Your task to perform on an android device: What's the latest news in space exploration? Image 0: 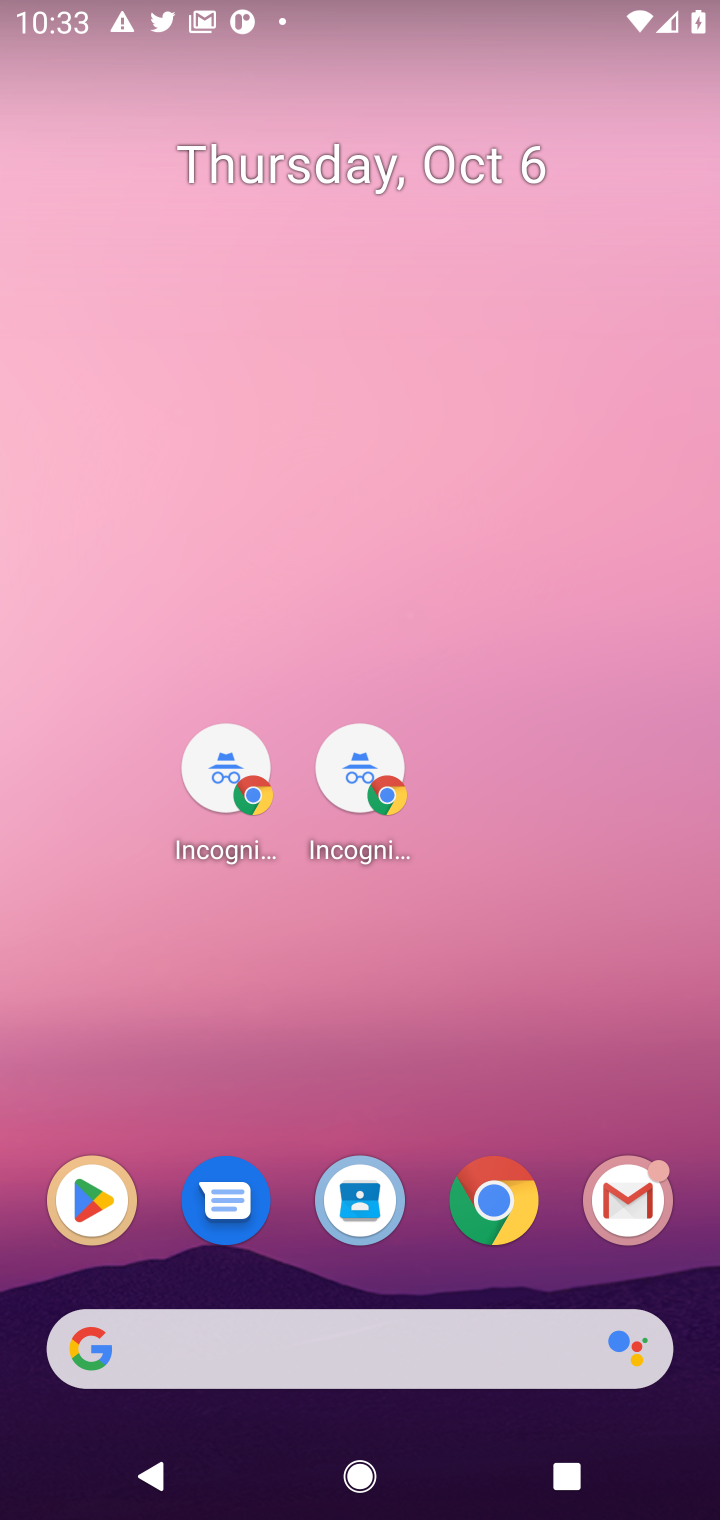
Step 0: click (487, 1189)
Your task to perform on an android device: What's the latest news in space exploration? Image 1: 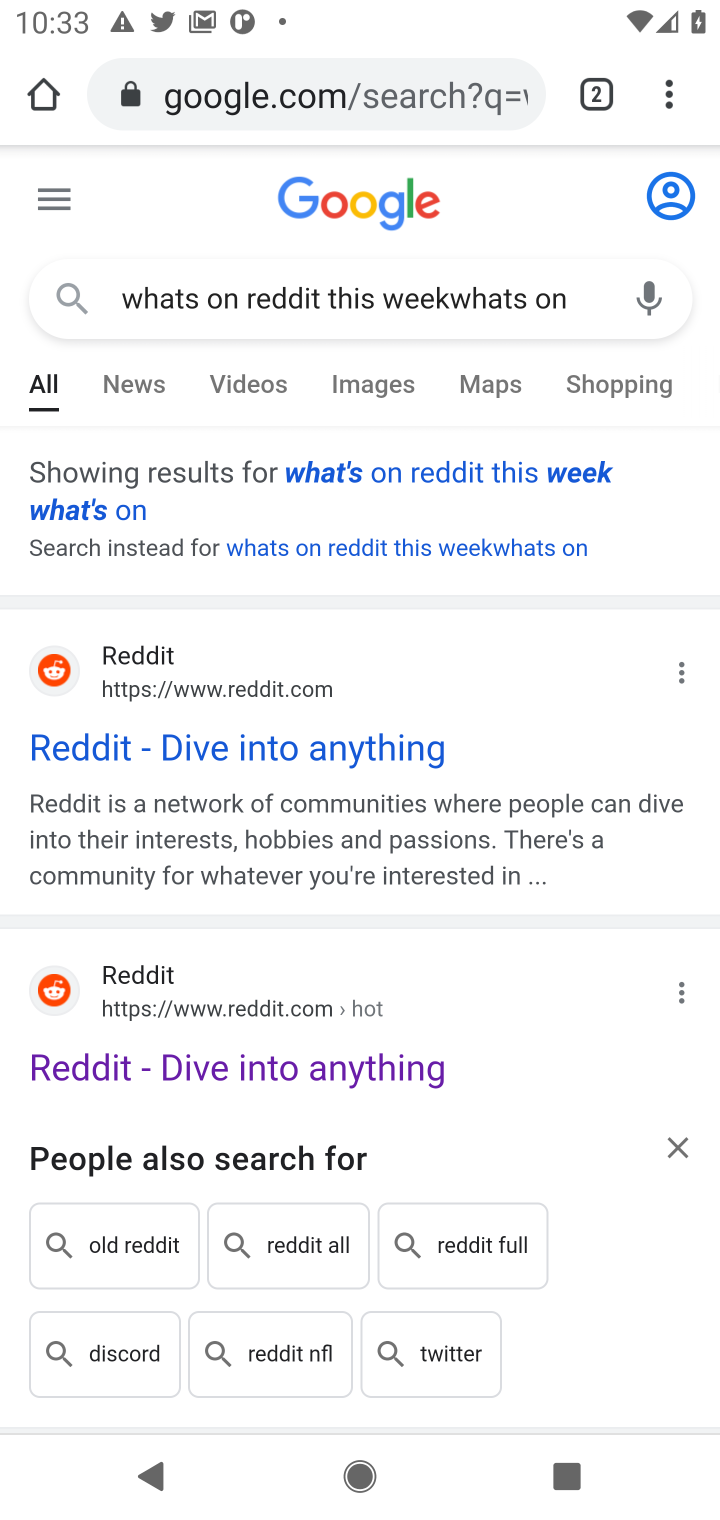
Step 1: click (358, 282)
Your task to perform on an android device: What's the latest news in space exploration? Image 2: 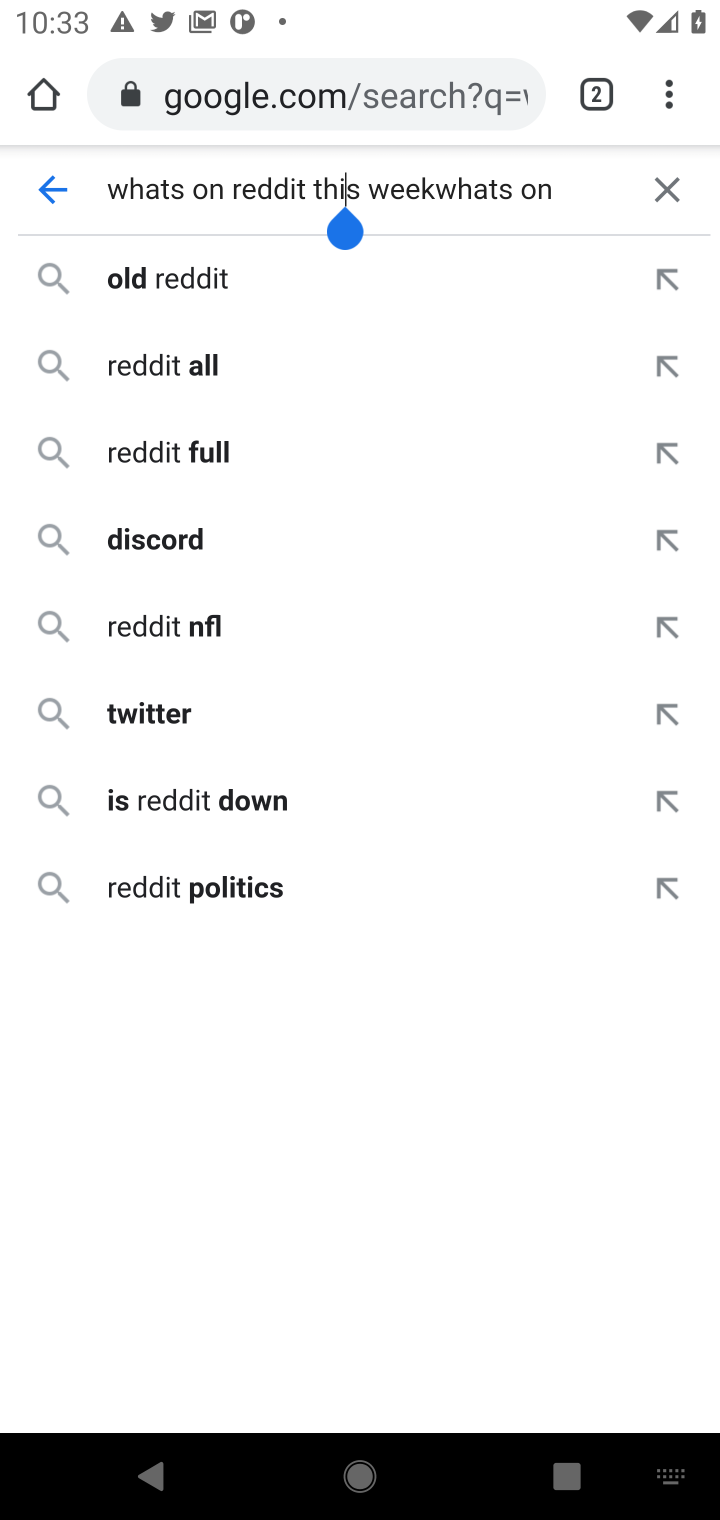
Step 2: click (661, 184)
Your task to perform on an android device: What's the latest news in space exploration? Image 3: 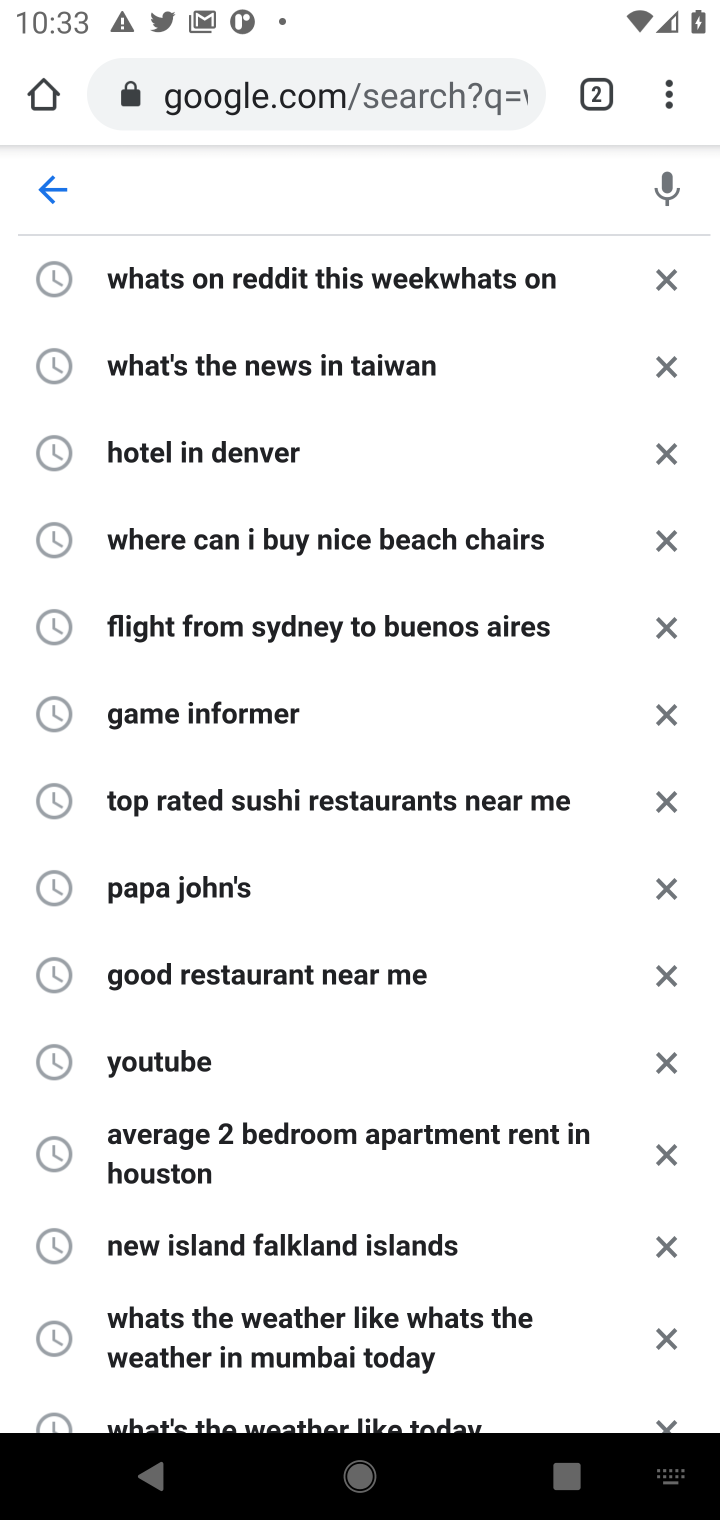
Step 3: type "whats the latest news in space exploration "
Your task to perform on an android device: What's the latest news in space exploration? Image 4: 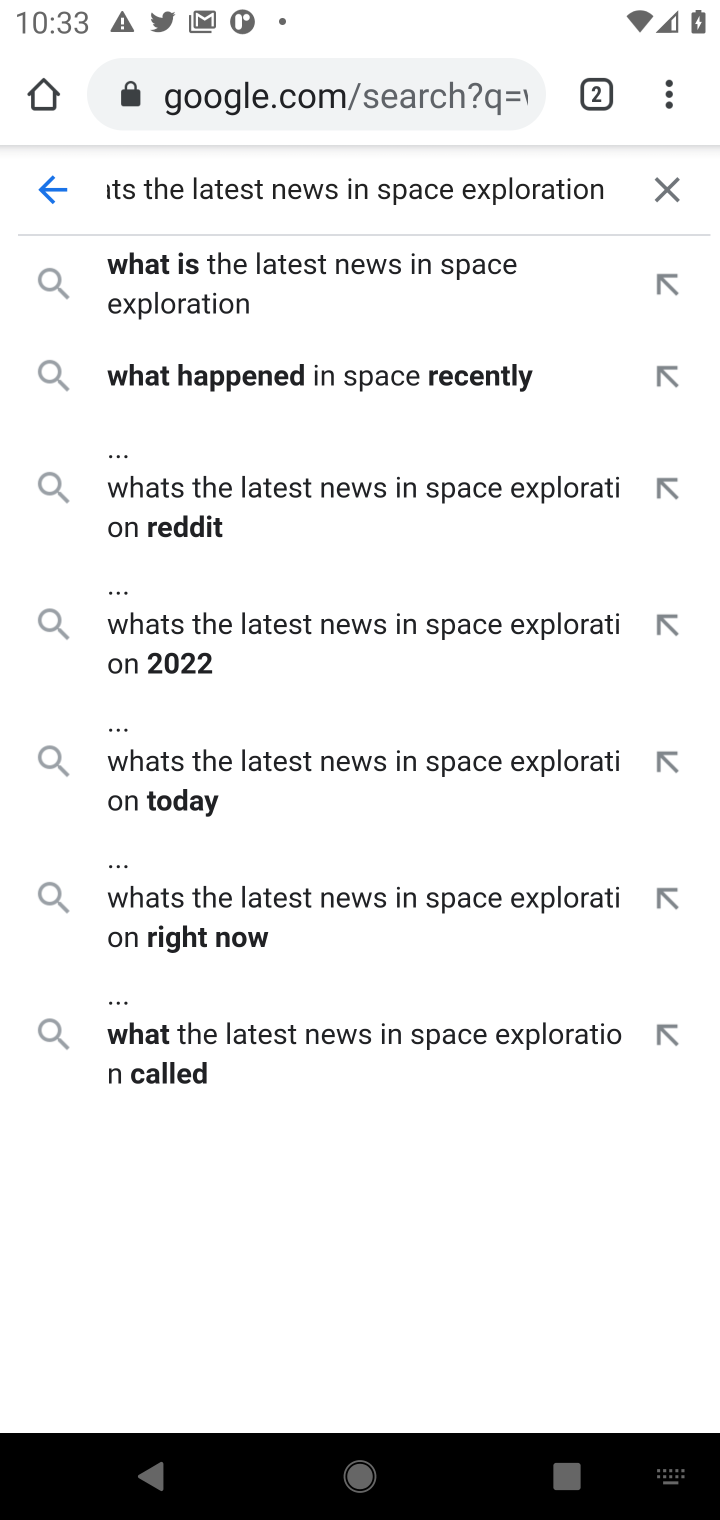
Step 4: click (287, 283)
Your task to perform on an android device: What's the latest news in space exploration? Image 5: 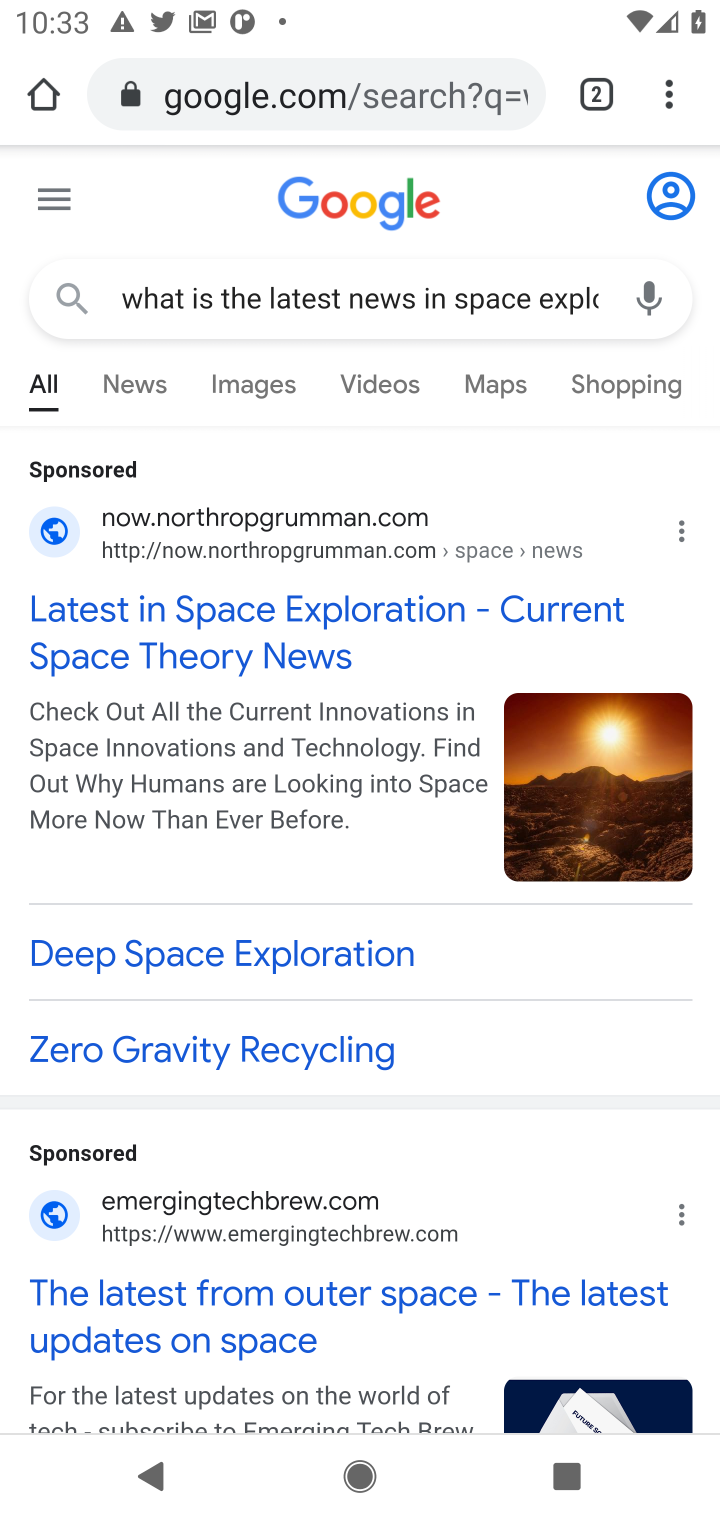
Step 5: click (215, 619)
Your task to perform on an android device: What's the latest news in space exploration? Image 6: 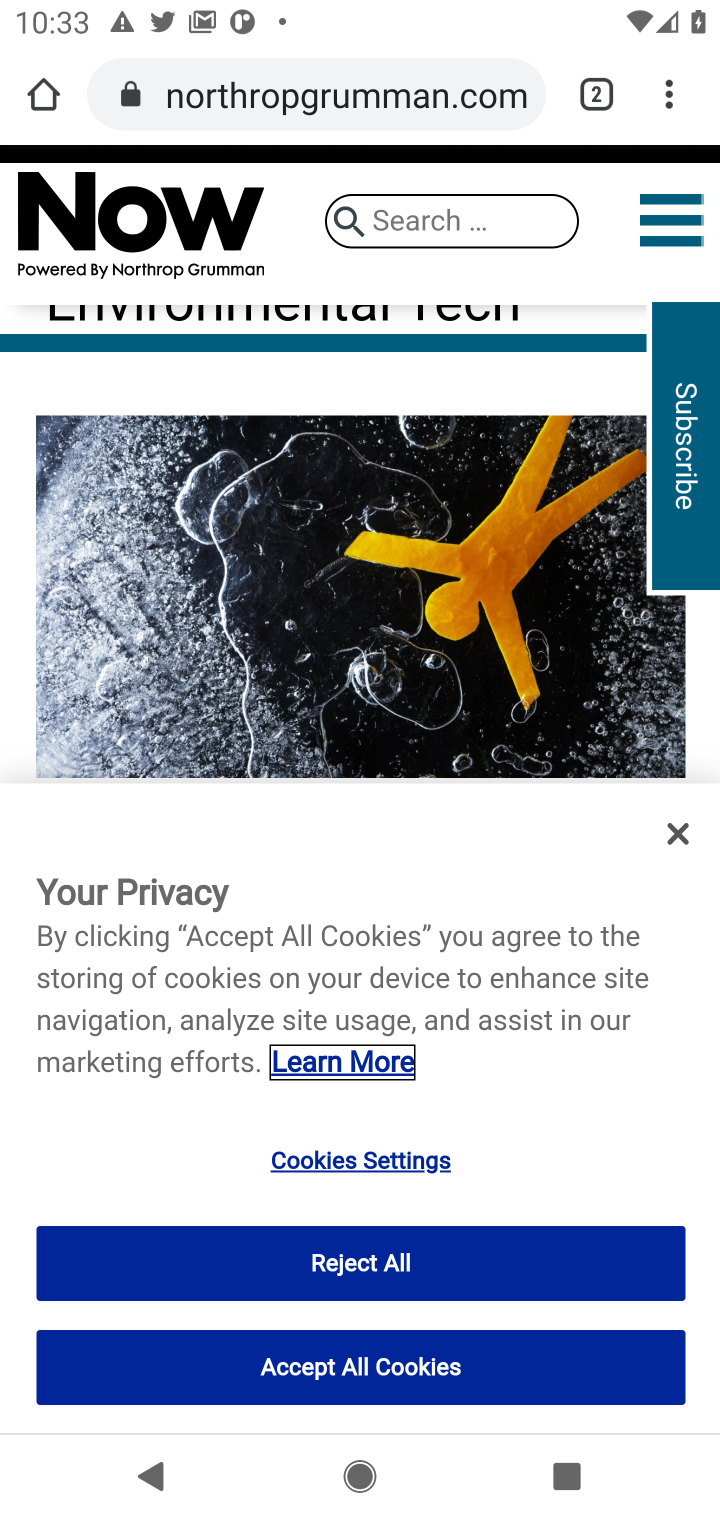
Step 6: click (692, 834)
Your task to perform on an android device: What's the latest news in space exploration? Image 7: 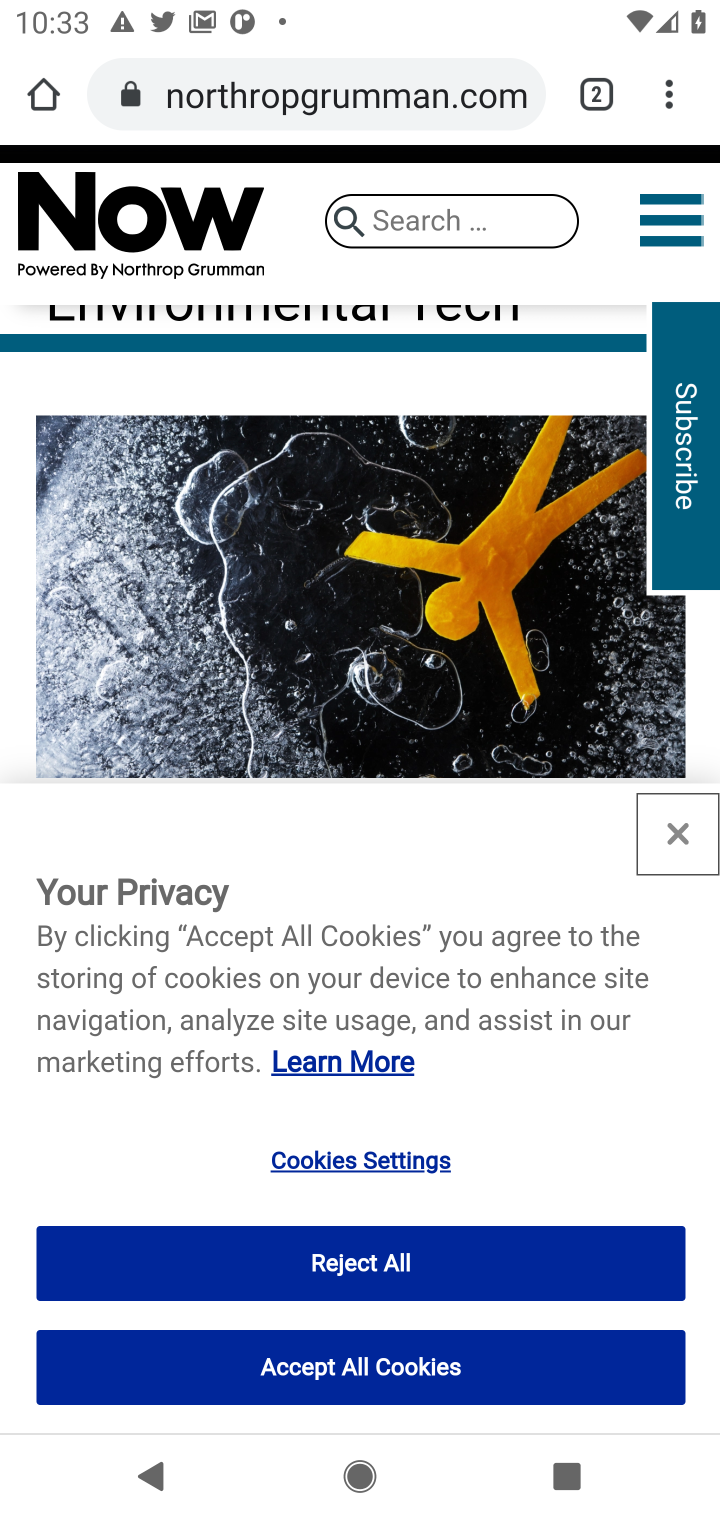
Step 7: click (688, 833)
Your task to perform on an android device: What's the latest news in space exploration? Image 8: 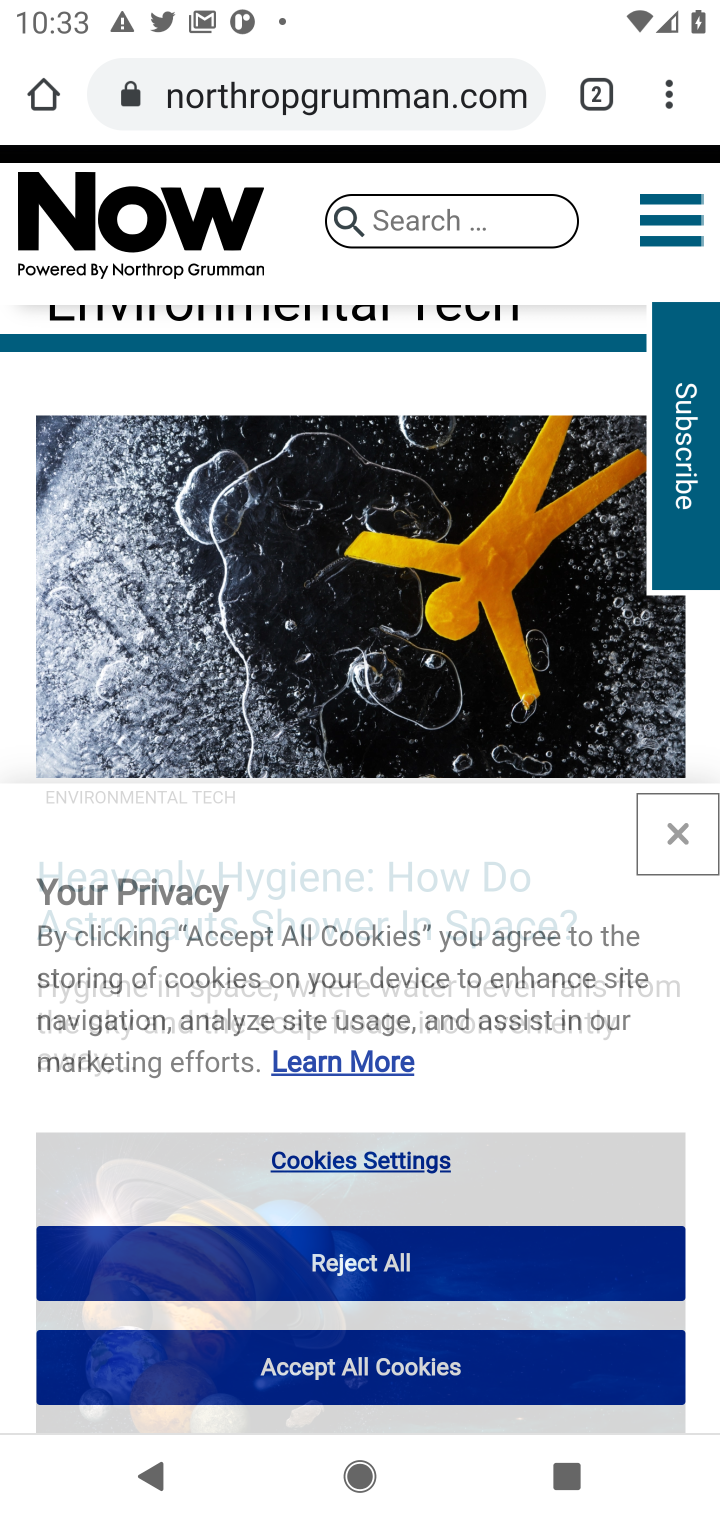
Step 8: drag from (294, 702) to (326, 853)
Your task to perform on an android device: What's the latest news in space exploration? Image 9: 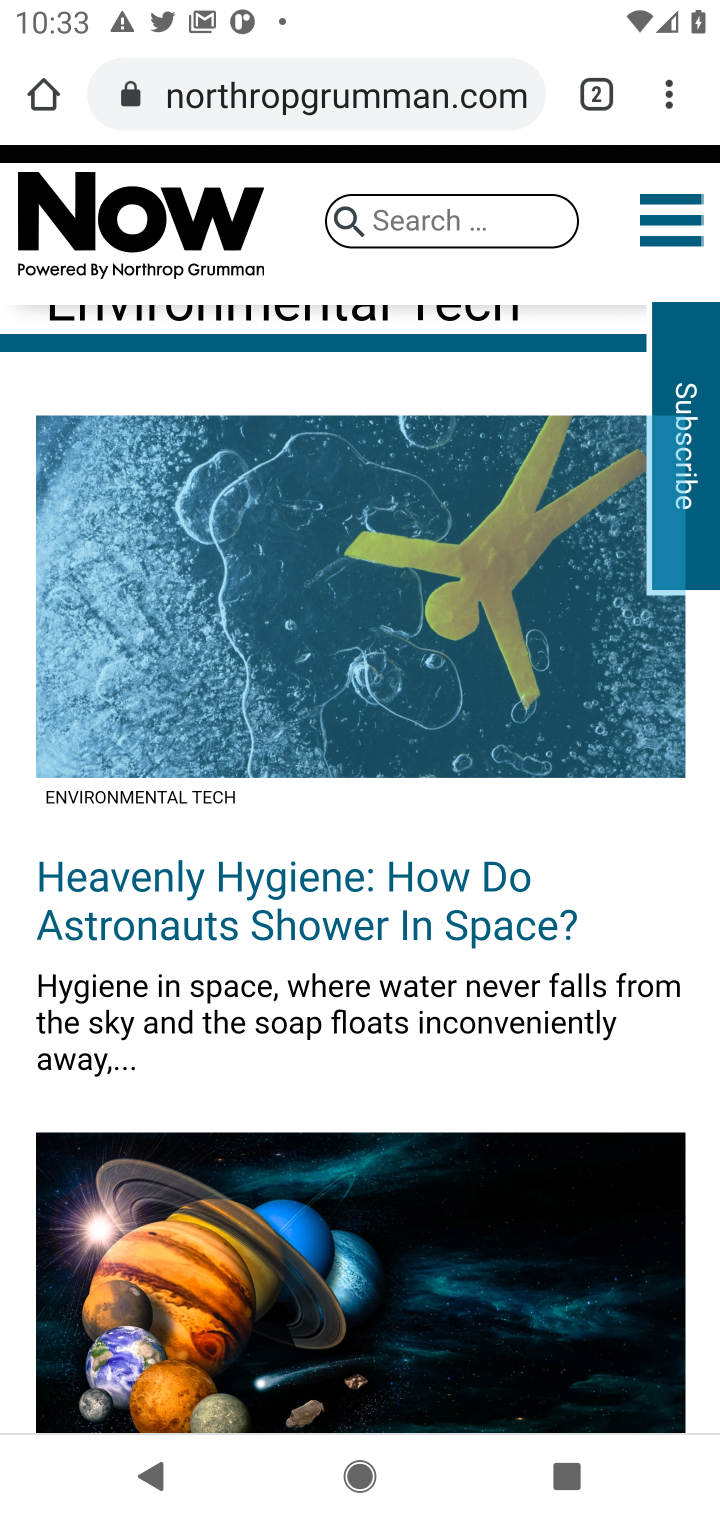
Step 9: drag from (313, 569) to (285, 1234)
Your task to perform on an android device: What's the latest news in space exploration? Image 10: 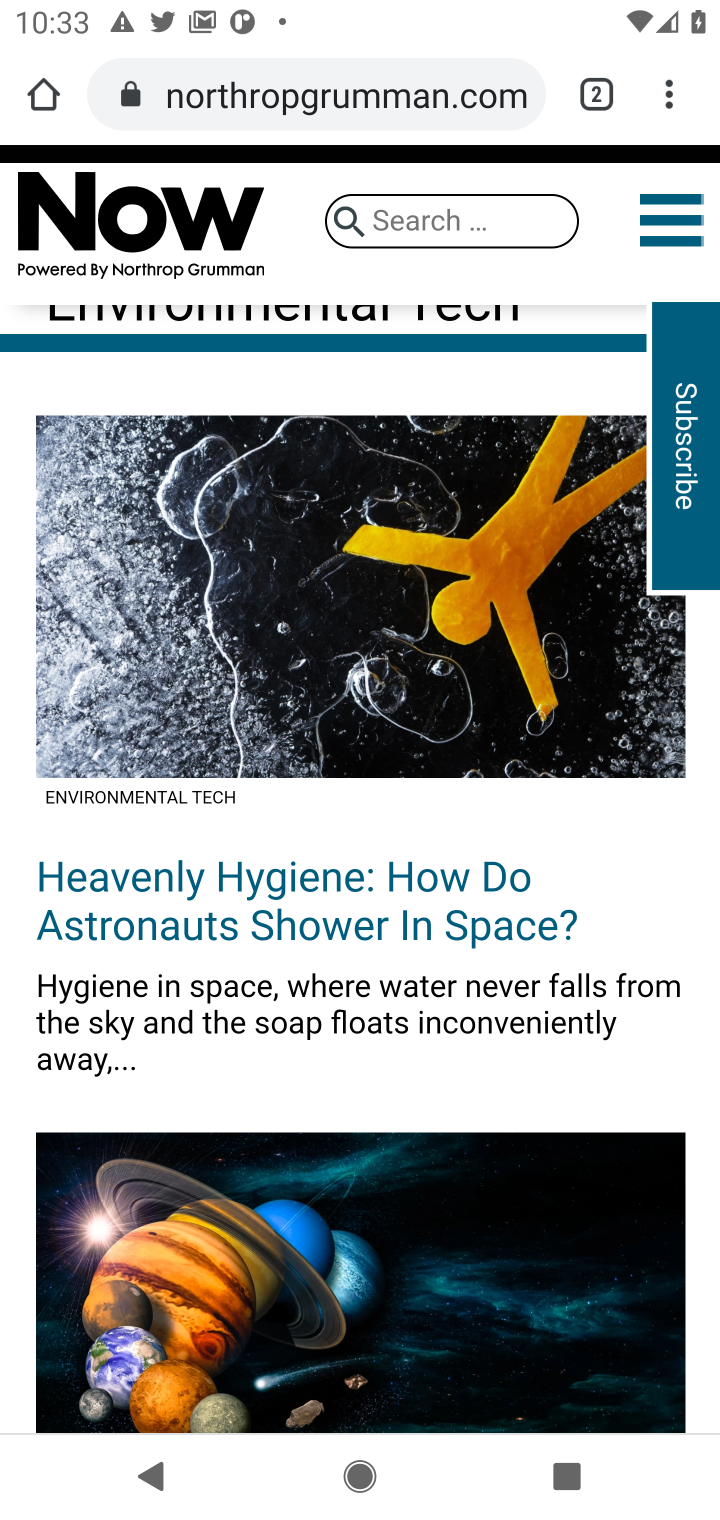
Step 10: drag from (355, 1383) to (447, 742)
Your task to perform on an android device: What's the latest news in space exploration? Image 11: 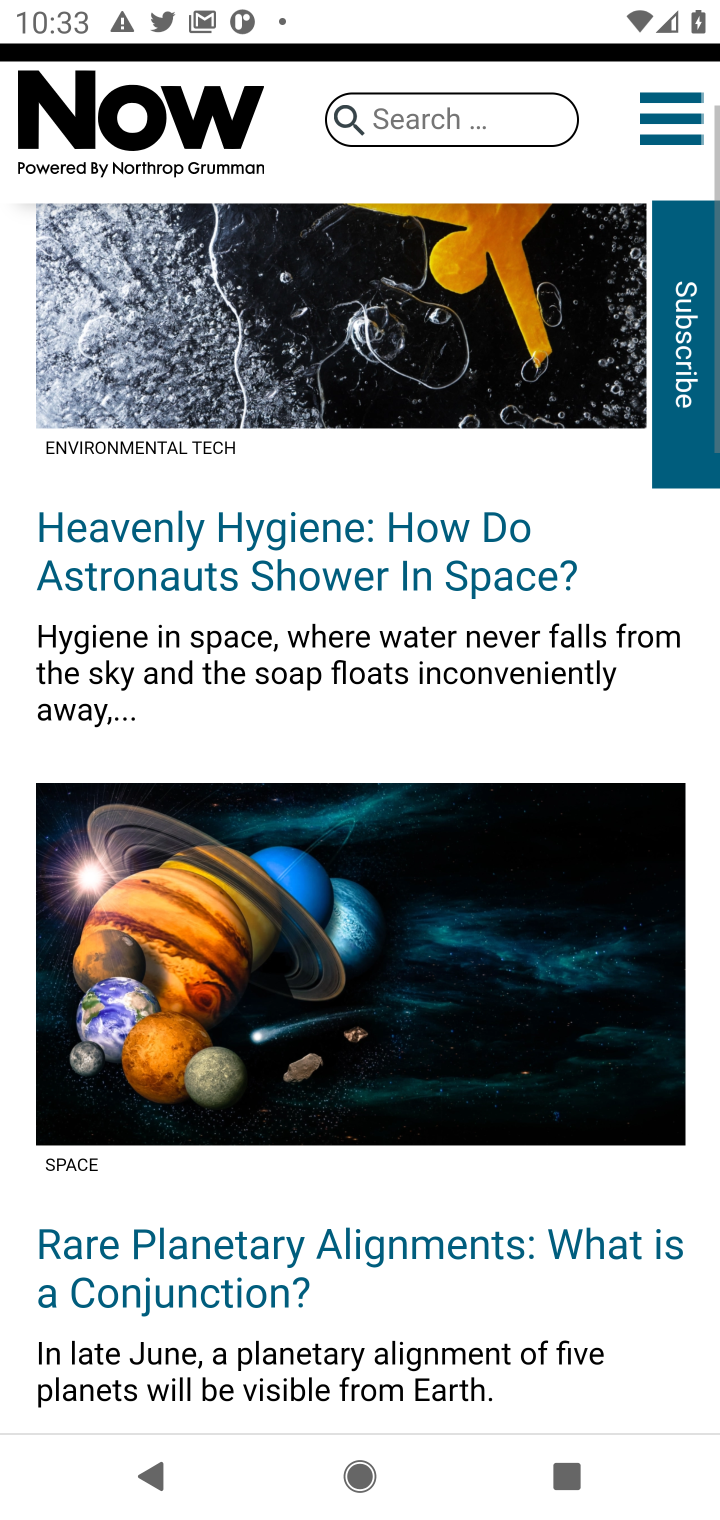
Step 11: drag from (350, 1067) to (435, 530)
Your task to perform on an android device: What's the latest news in space exploration? Image 12: 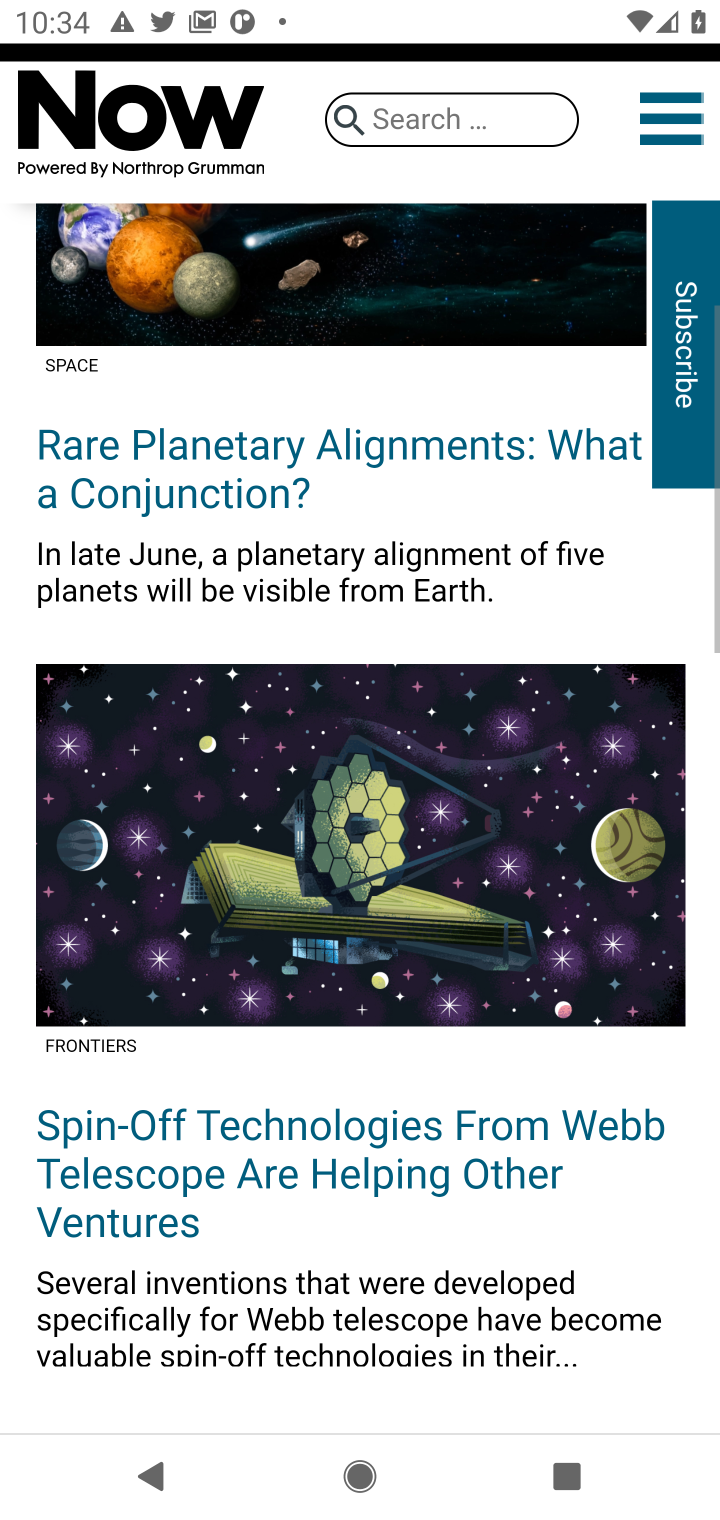
Step 12: drag from (329, 1118) to (416, 537)
Your task to perform on an android device: What's the latest news in space exploration? Image 13: 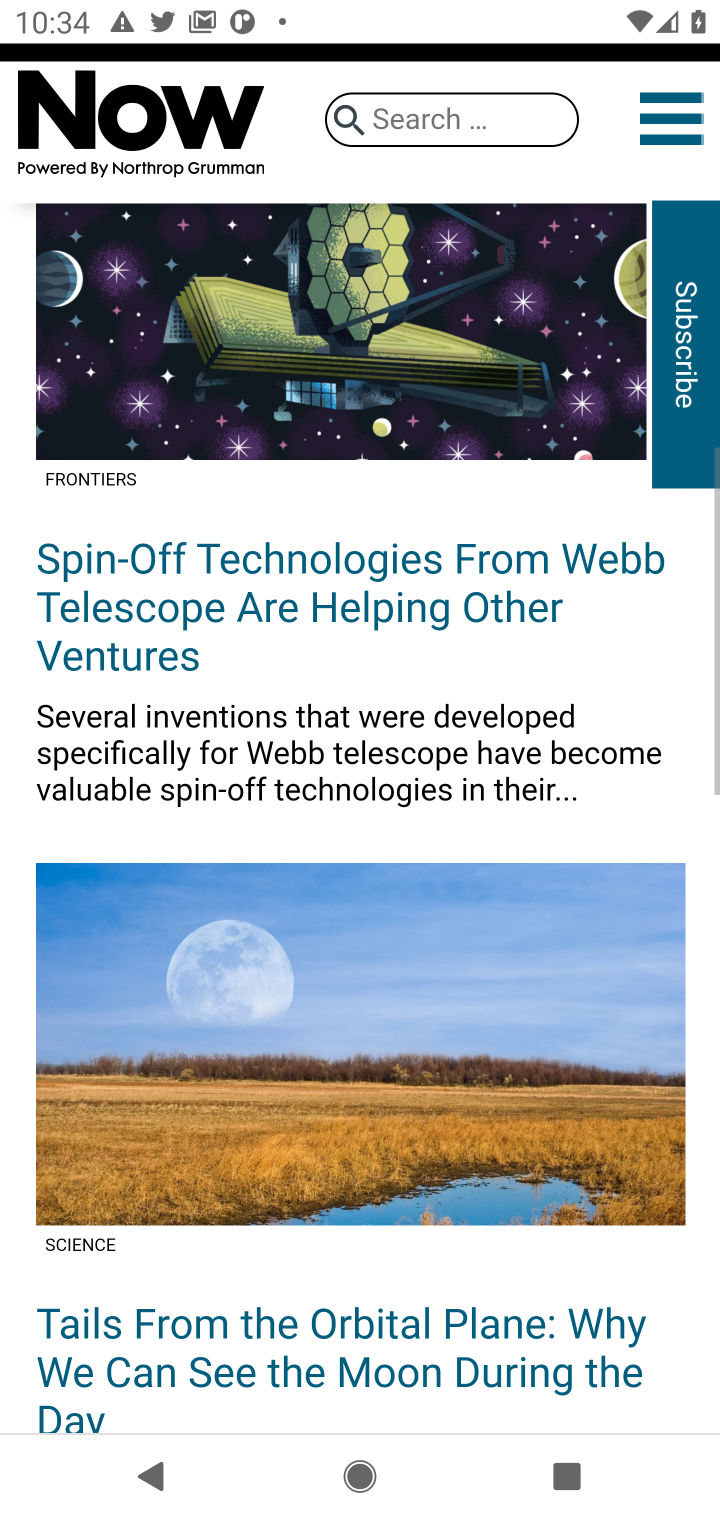
Step 13: drag from (362, 1167) to (439, 668)
Your task to perform on an android device: What's the latest news in space exploration? Image 14: 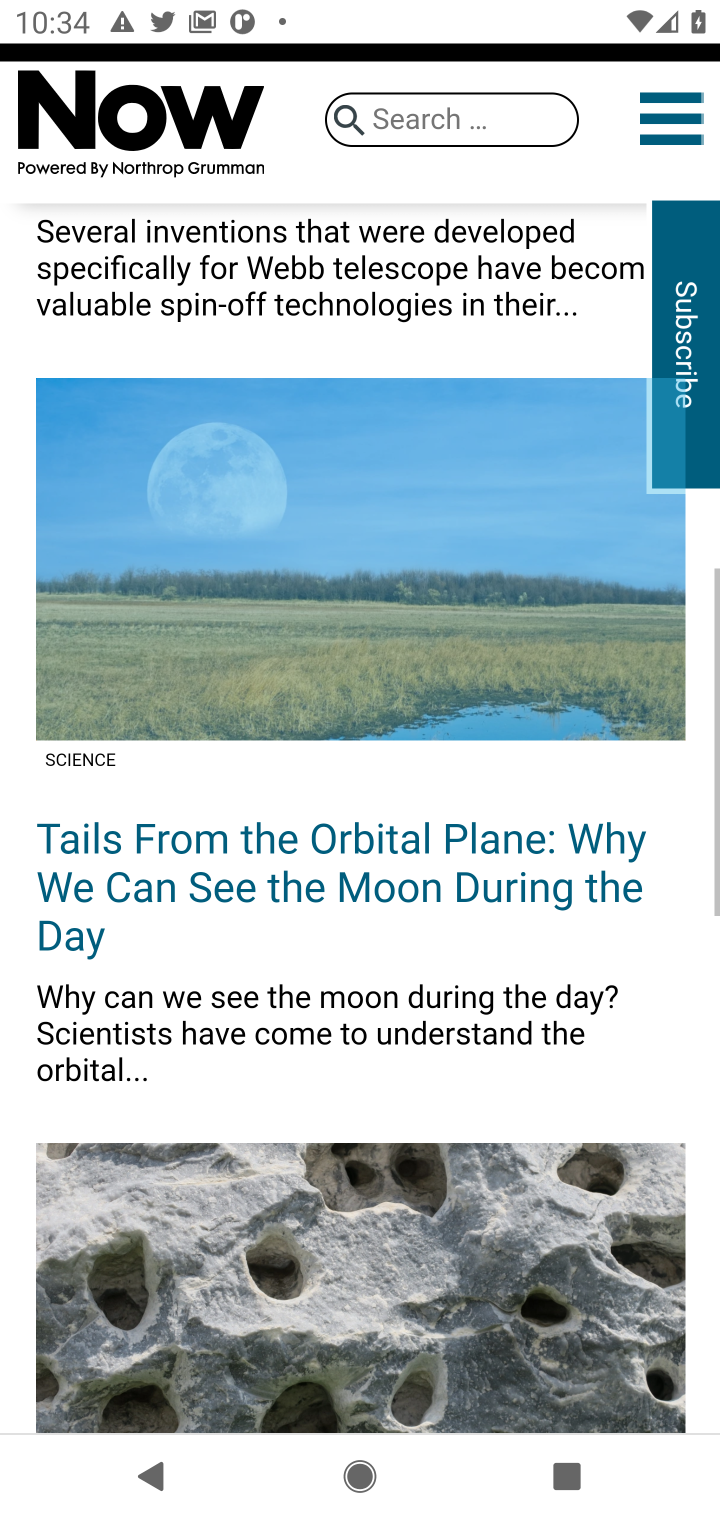
Step 14: drag from (506, 913) to (541, 664)
Your task to perform on an android device: What's the latest news in space exploration? Image 15: 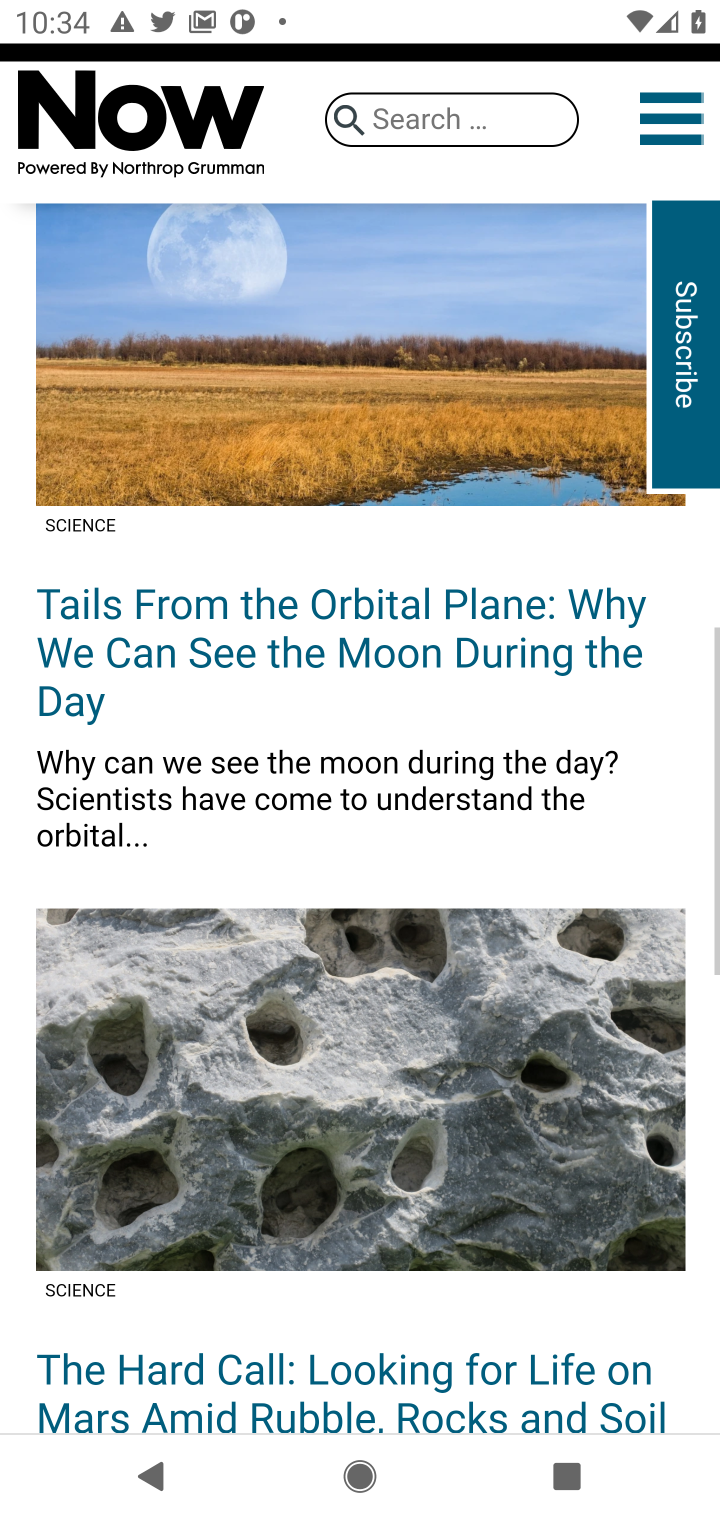
Step 15: drag from (348, 857) to (375, 644)
Your task to perform on an android device: What's the latest news in space exploration? Image 16: 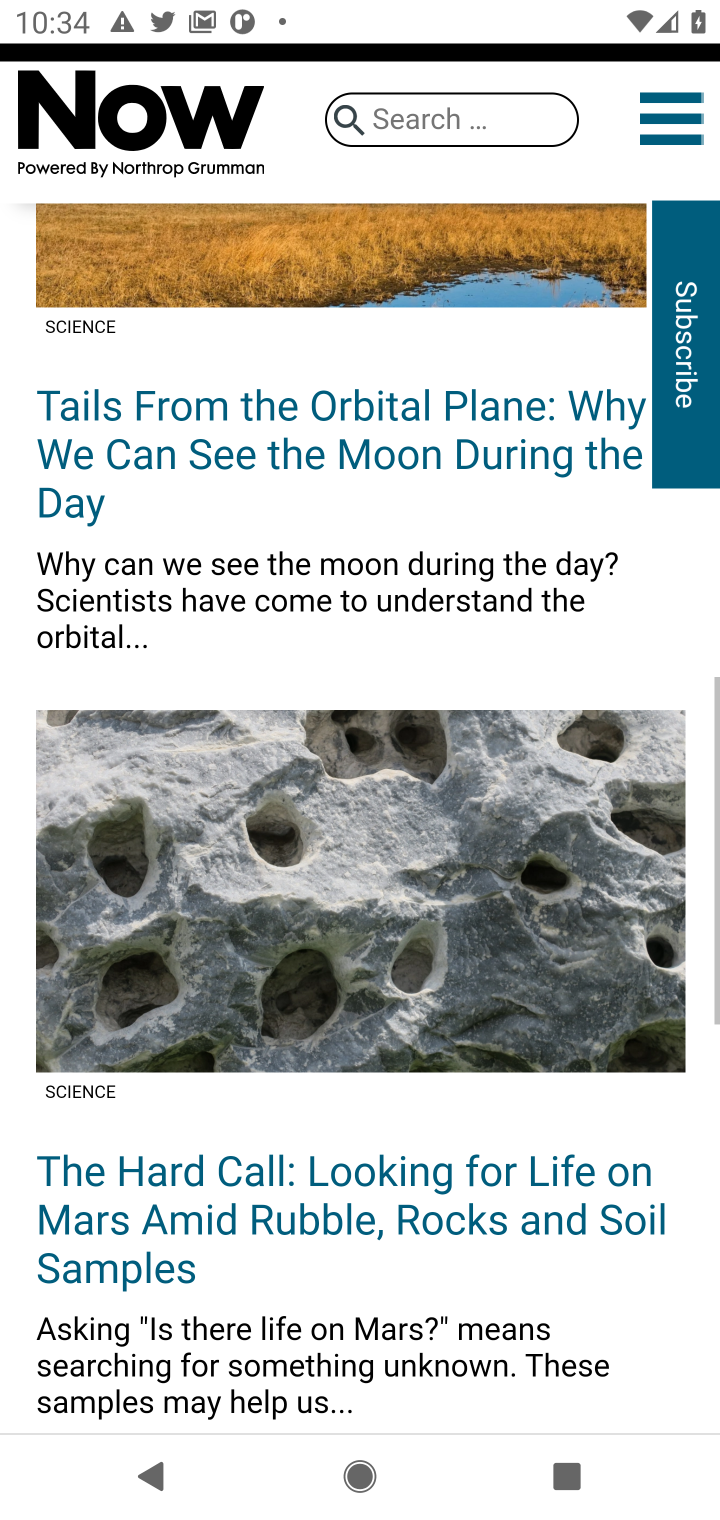
Step 16: drag from (333, 1326) to (390, 829)
Your task to perform on an android device: What's the latest news in space exploration? Image 17: 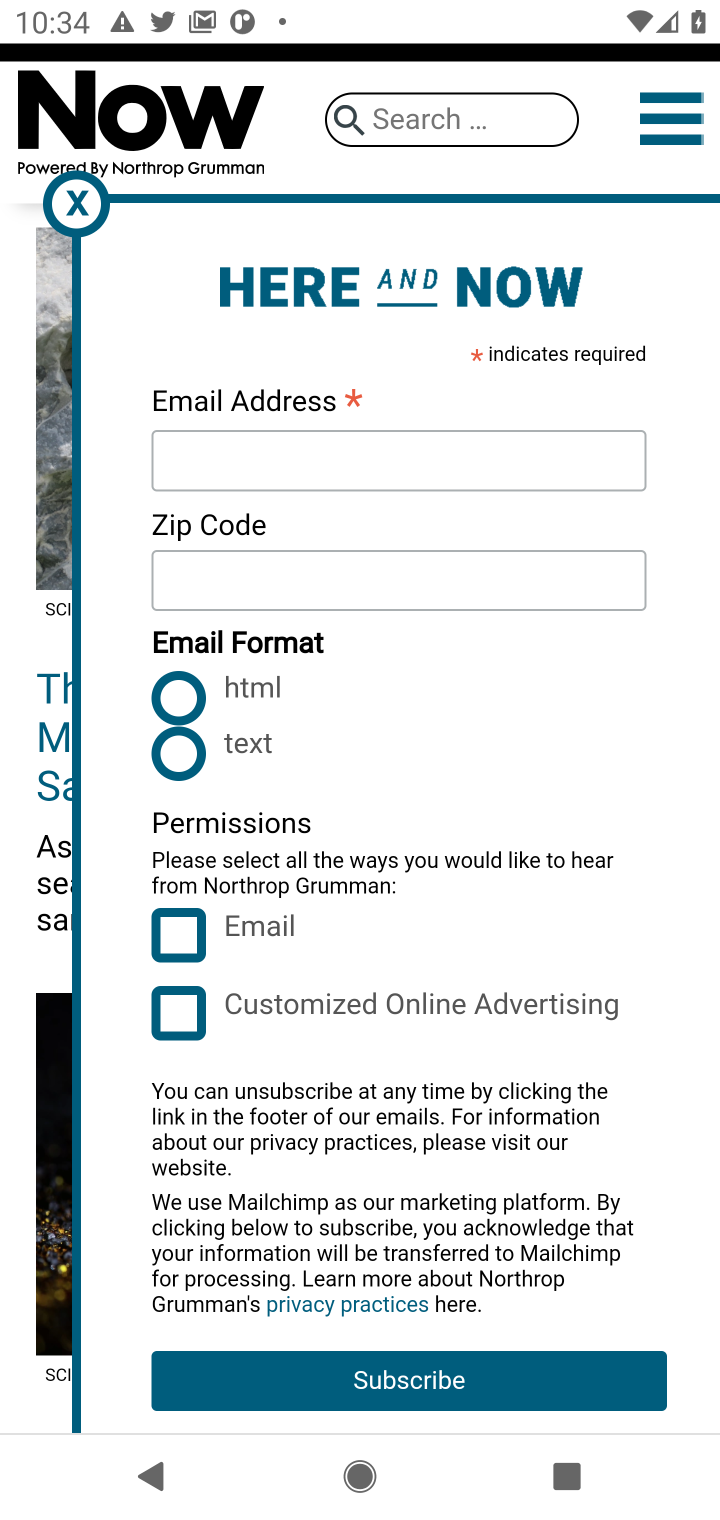
Step 17: click (81, 204)
Your task to perform on an android device: What's the latest news in space exploration? Image 18: 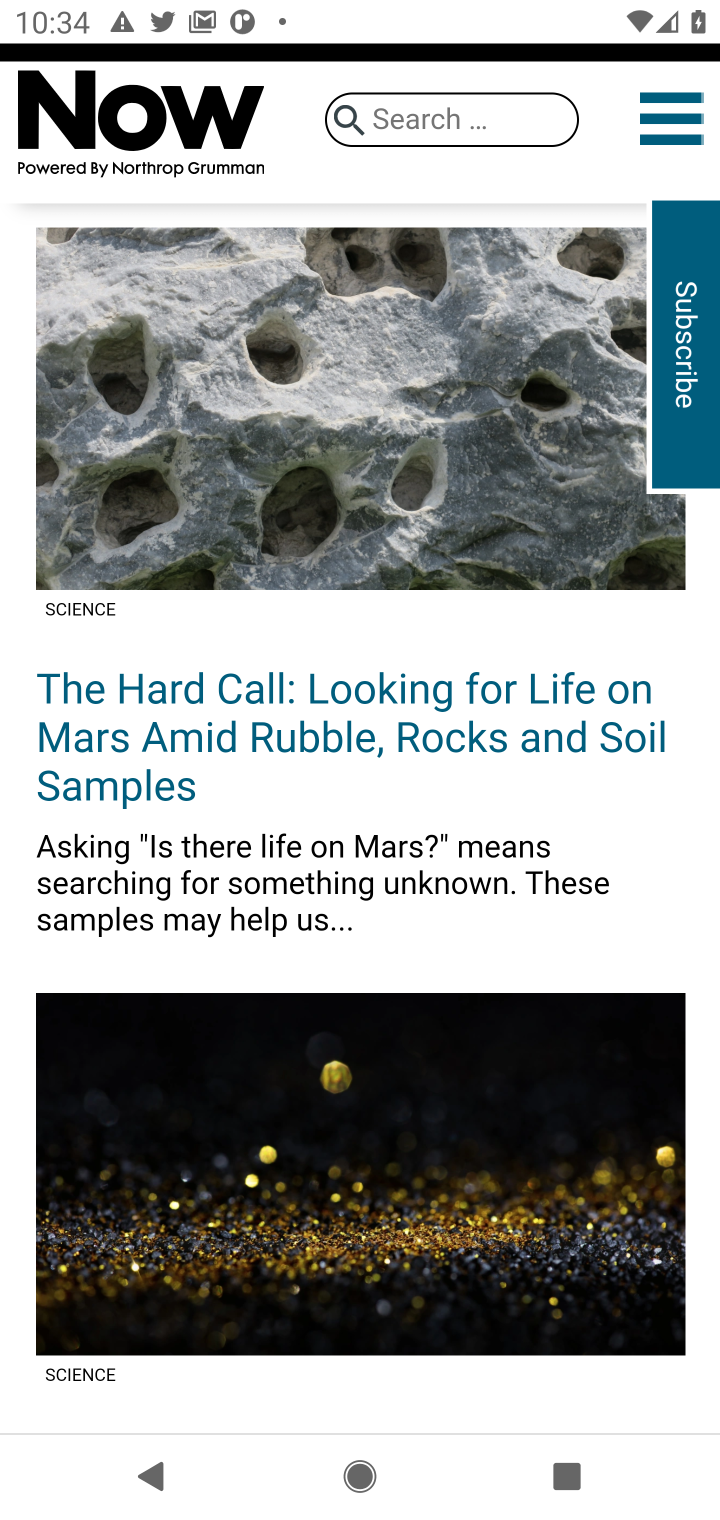
Step 18: task complete